Your task to perform on an android device: turn off data saver in the chrome app Image 0: 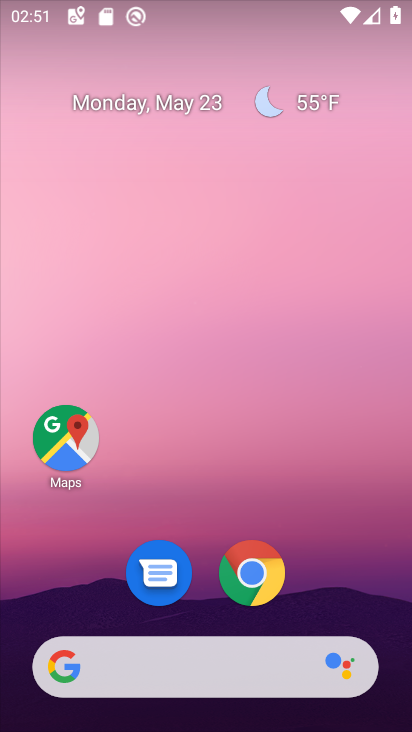
Step 0: click (260, 565)
Your task to perform on an android device: turn off data saver in the chrome app Image 1: 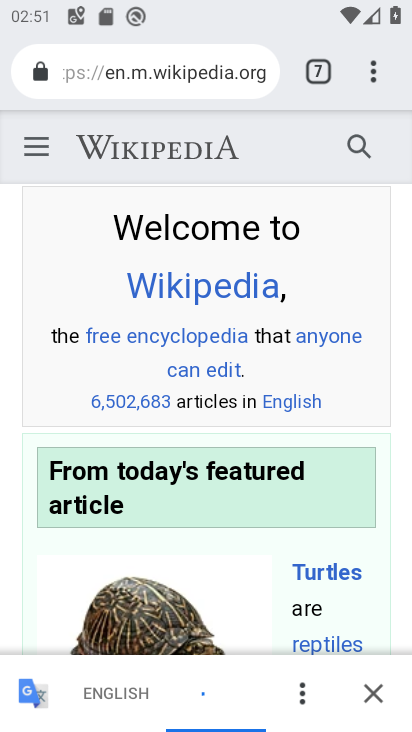
Step 1: click (369, 70)
Your task to perform on an android device: turn off data saver in the chrome app Image 2: 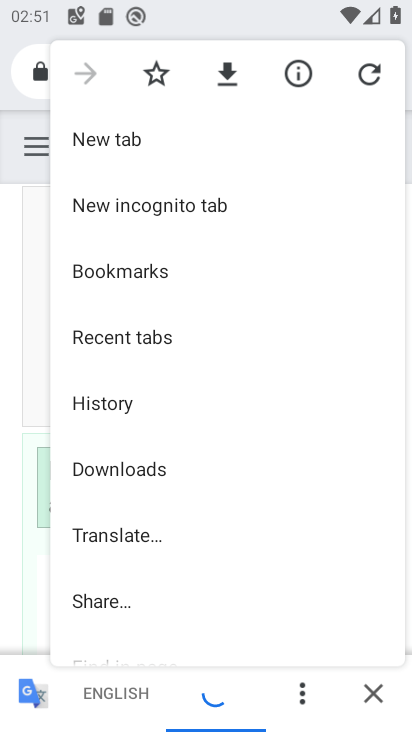
Step 2: drag from (219, 494) to (176, 182)
Your task to perform on an android device: turn off data saver in the chrome app Image 3: 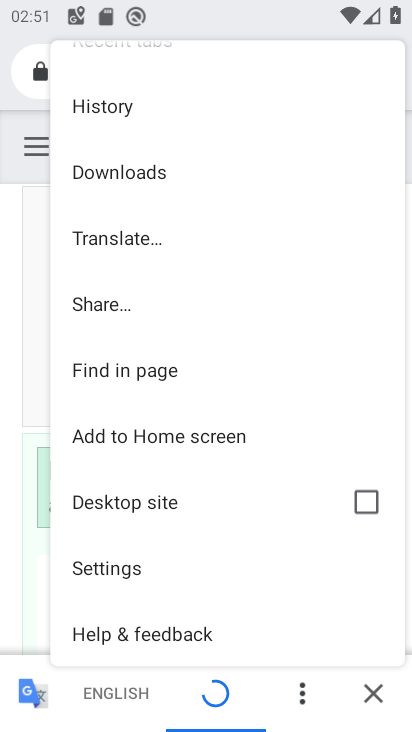
Step 3: drag from (160, 506) to (152, 105)
Your task to perform on an android device: turn off data saver in the chrome app Image 4: 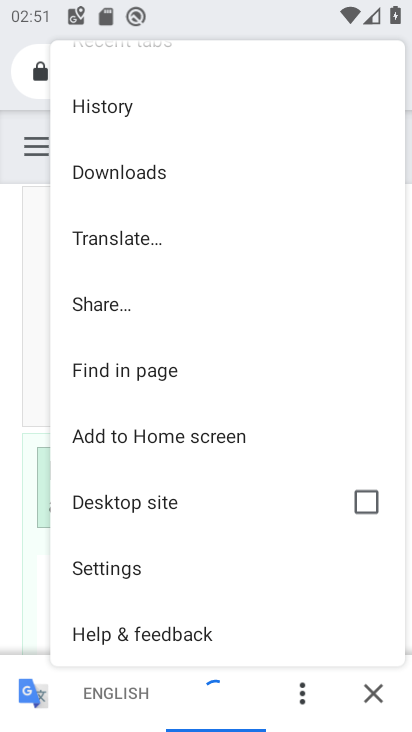
Step 4: click (143, 562)
Your task to perform on an android device: turn off data saver in the chrome app Image 5: 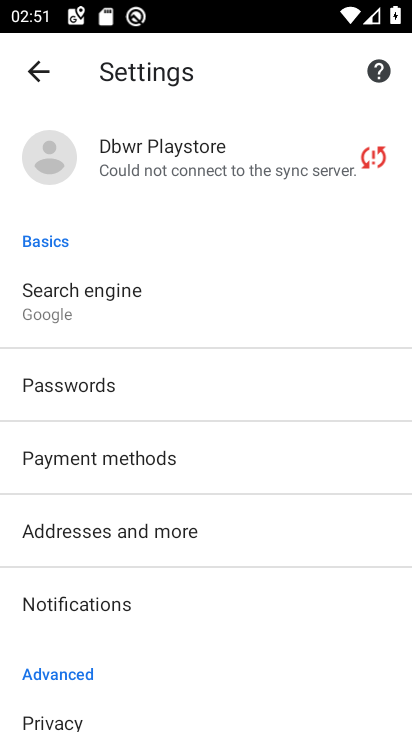
Step 5: drag from (229, 580) to (209, 205)
Your task to perform on an android device: turn off data saver in the chrome app Image 6: 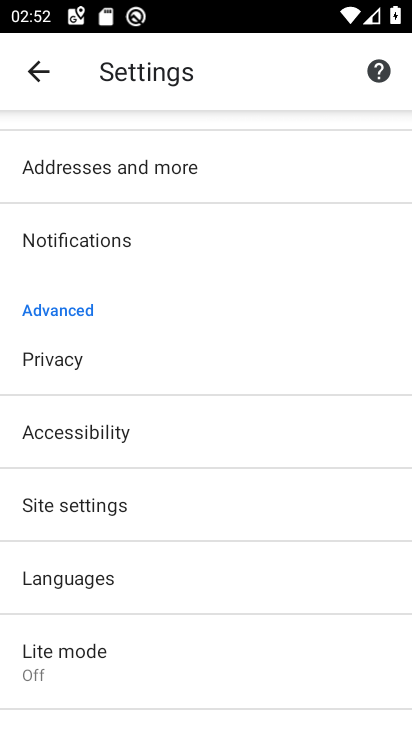
Step 6: drag from (193, 592) to (179, 324)
Your task to perform on an android device: turn off data saver in the chrome app Image 7: 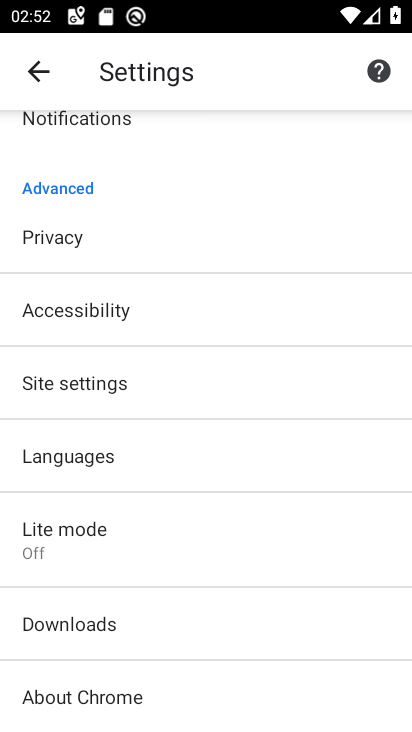
Step 7: click (138, 234)
Your task to perform on an android device: turn off data saver in the chrome app Image 8: 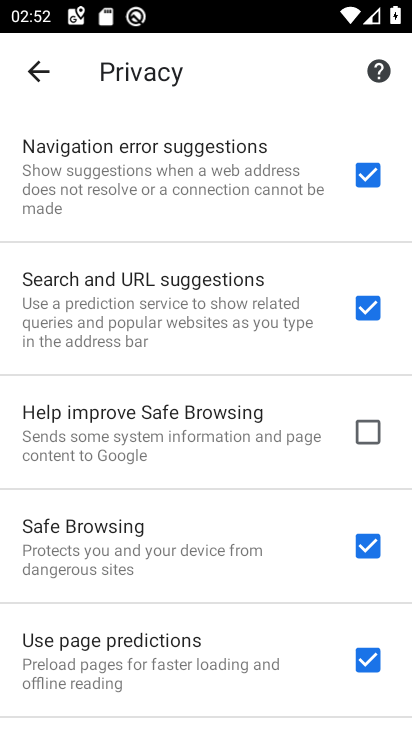
Step 8: drag from (140, 534) to (138, 243)
Your task to perform on an android device: turn off data saver in the chrome app Image 9: 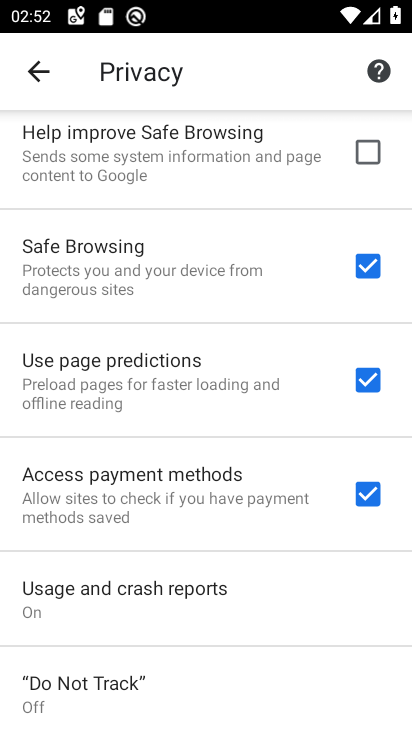
Step 9: drag from (183, 615) to (175, 312)
Your task to perform on an android device: turn off data saver in the chrome app Image 10: 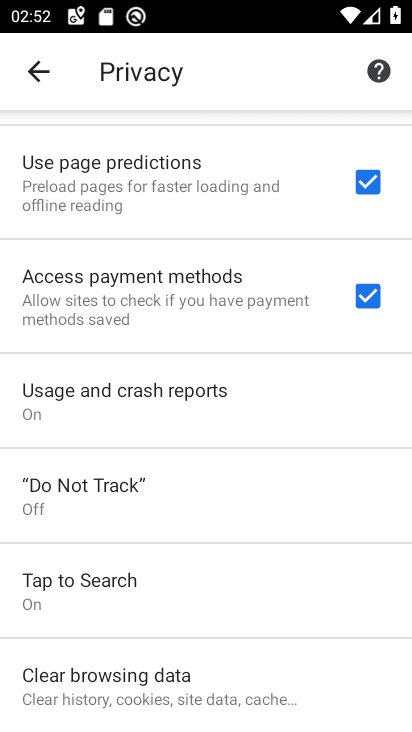
Step 10: press back button
Your task to perform on an android device: turn off data saver in the chrome app Image 11: 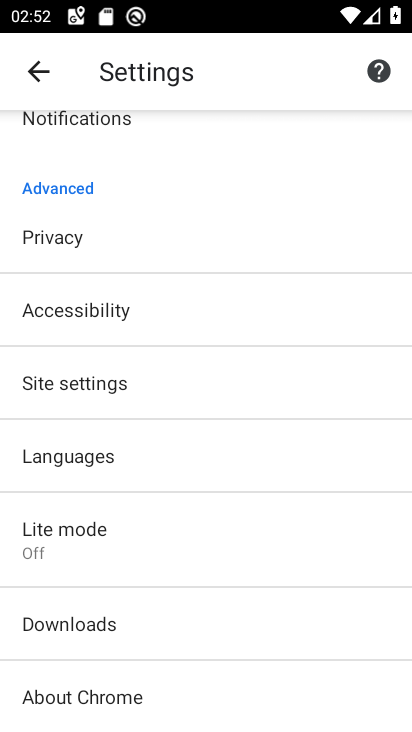
Step 11: click (135, 305)
Your task to perform on an android device: turn off data saver in the chrome app Image 12: 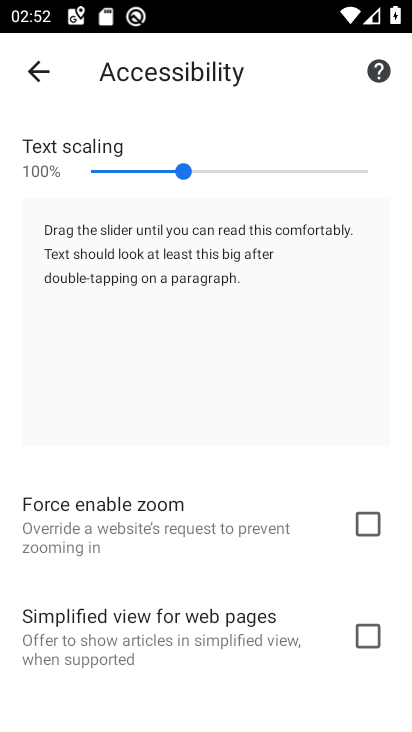
Step 12: drag from (183, 577) to (171, 298)
Your task to perform on an android device: turn off data saver in the chrome app Image 13: 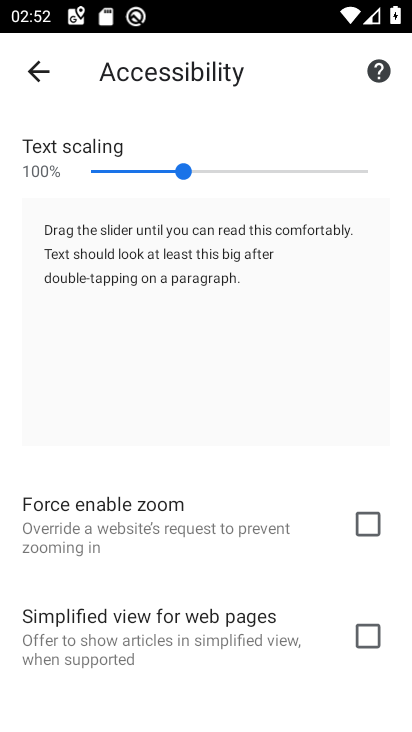
Step 13: press back button
Your task to perform on an android device: turn off data saver in the chrome app Image 14: 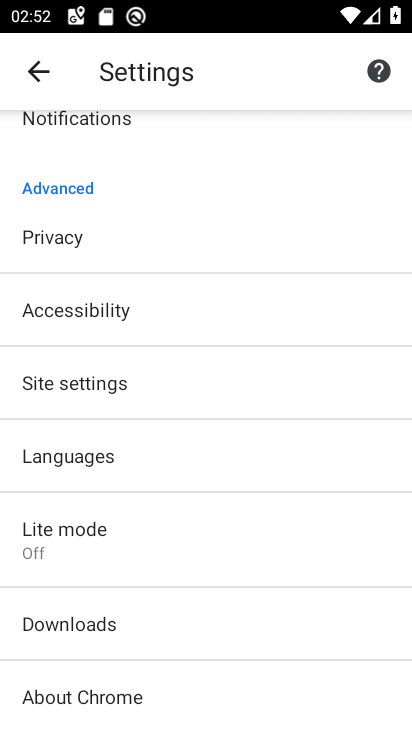
Step 14: click (89, 228)
Your task to perform on an android device: turn off data saver in the chrome app Image 15: 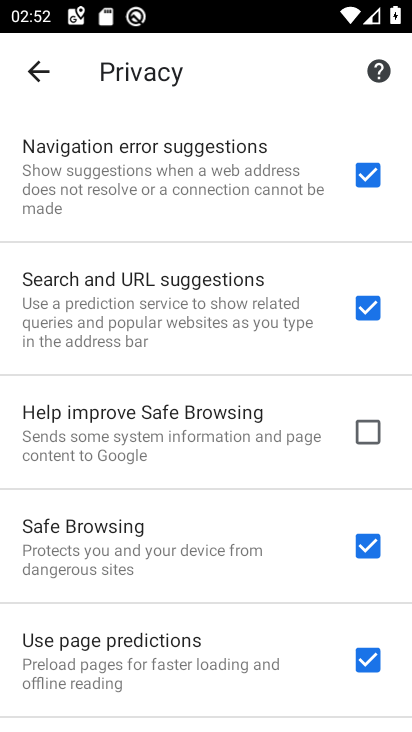
Step 15: press back button
Your task to perform on an android device: turn off data saver in the chrome app Image 16: 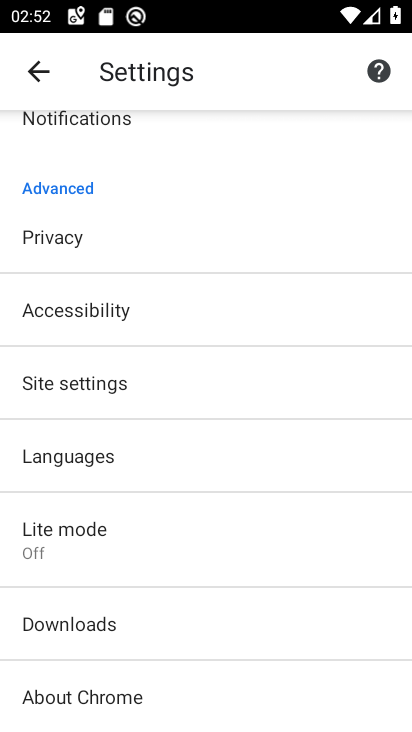
Step 16: click (210, 402)
Your task to perform on an android device: turn off data saver in the chrome app Image 17: 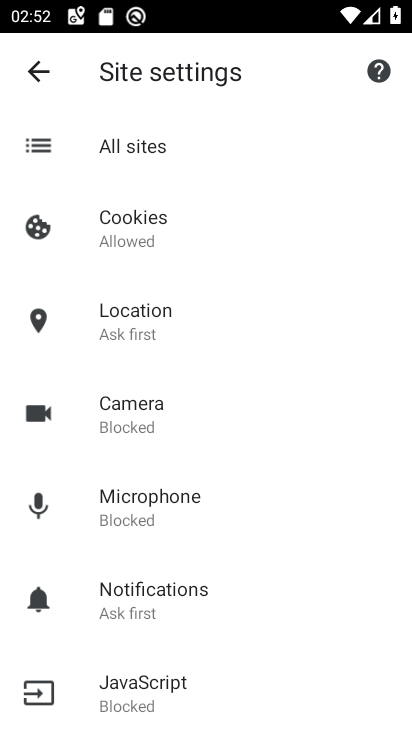
Step 17: task complete